Your task to perform on an android device: Show the shopping cart on walmart.com. Image 0: 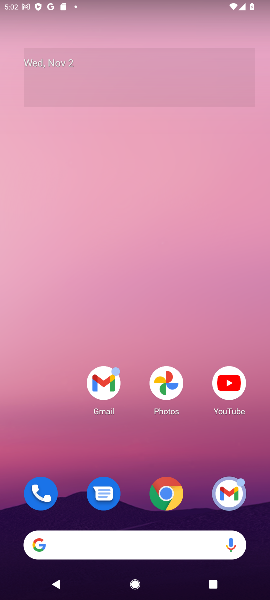
Step 0: drag from (108, 527) to (113, 63)
Your task to perform on an android device: Show the shopping cart on walmart.com. Image 1: 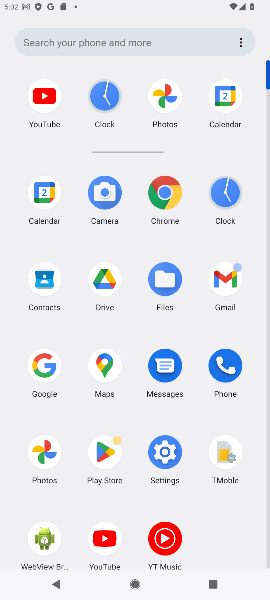
Step 1: click (37, 359)
Your task to perform on an android device: Show the shopping cart on walmart.com. Image 2: 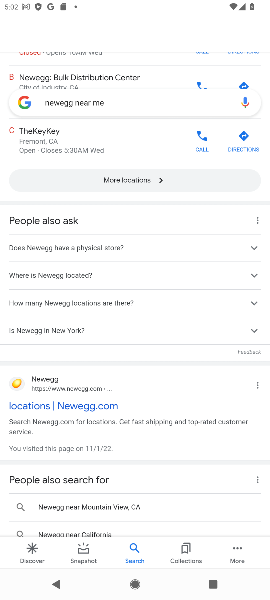
Step 2: click (106, 104)
Your task to perform on an android device: Show the shopping cart on walmart.com. Image 3: 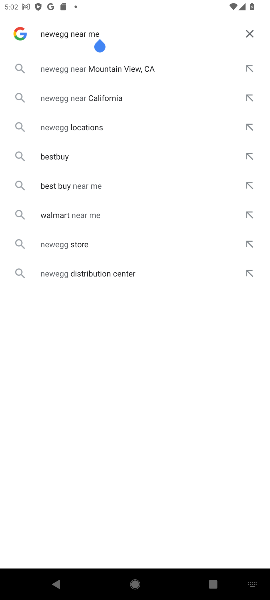
Step 3: click (137, 33)
Your task to perform on an android device: Show the shopping cart on walmart.com. Image 4: 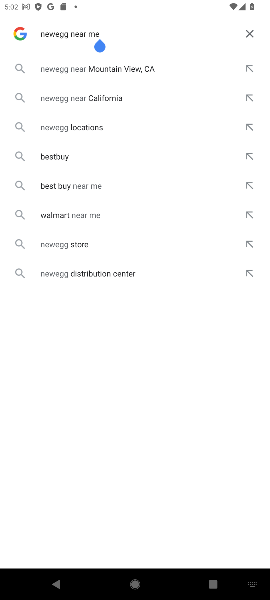
Step 4: click (245, 32)
Your task to perform on an android device: Show the shopping cart on walmart.com. Image 5: 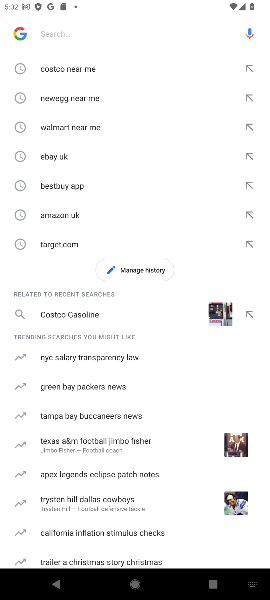
Step 5: click (69, 33)
Your task to perform on an android device: Show the shopping cart on walmart.com. Image 6: 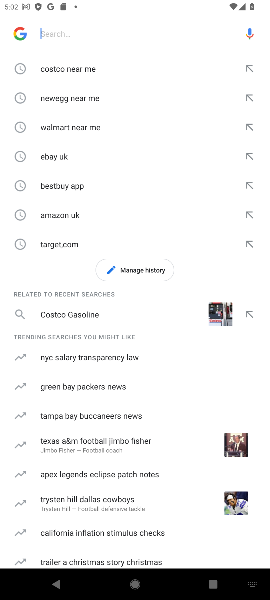
Step 6: type "walmart "
Your task to perform on an android device: Show the shopping cart on walmart.com. Image 7: 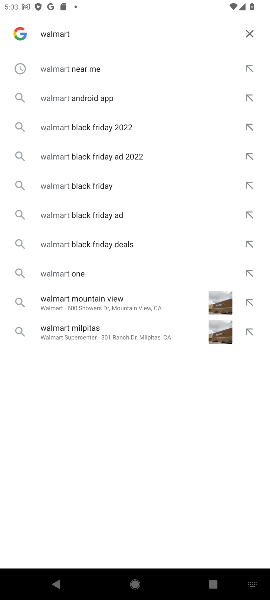
Step 7: click (86, 67)
Your task to perform on an android device: Show the shopping cart on walmart.com. Image 8: 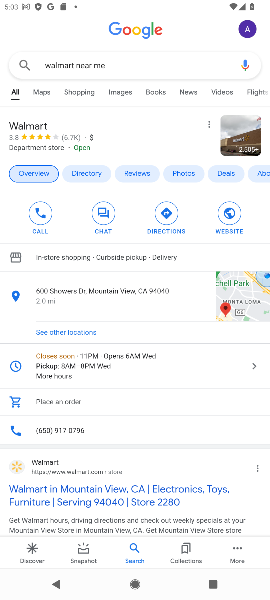
Step 8: click (16, 469)
Your task to perform on an android device: Show the shopping cart on walmart.com. Image 9: 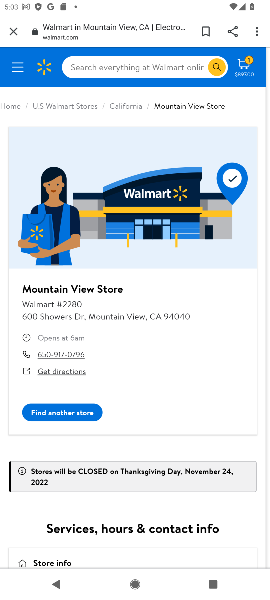
Step 9: click (123, 62)
Your task to perform on an android device: Show the shopping cart on walmart.com. Image 10: 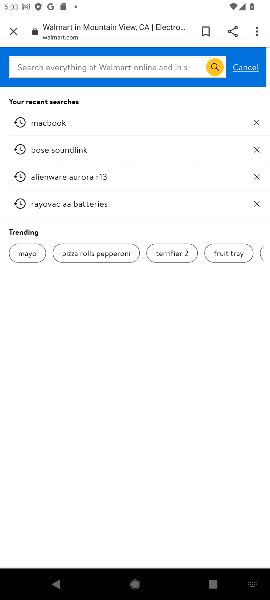
Step 10: click (262, 71)
Your task to perform on an android device: Show the shopping cart on walmart.com. Image 11: 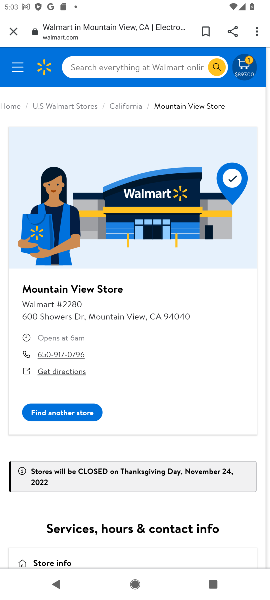
Step 11: click (241, 68)
Your task to perform on an android device: Show the shopping cart on walmart.com. Image 12: 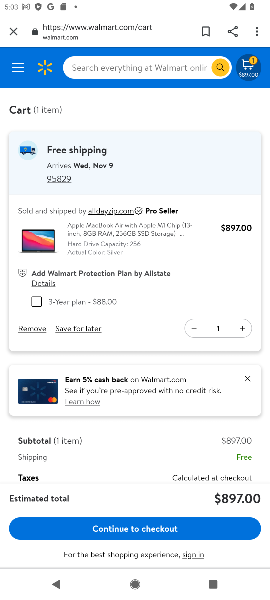
Step 12: click (248, 66)
Your task to perform on an android device: Show the shopping cart on walmart.com. Image 13: 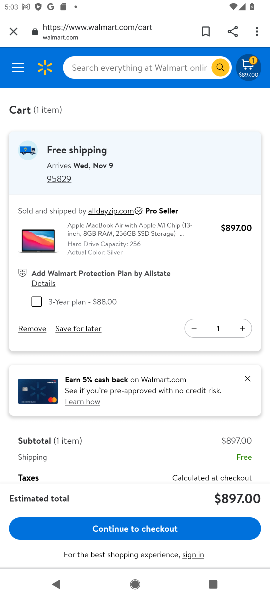
Step 13: click (248, 66)
Your task to perform on an android device: Show the shopping cart on walmart.com. Image 14: 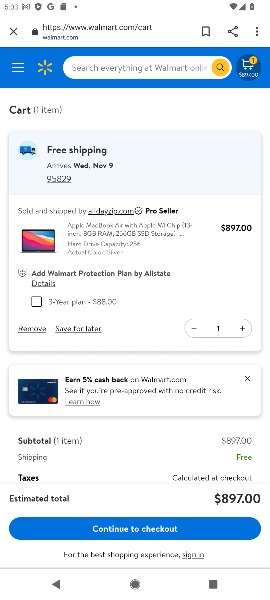
Step 14: task complete